Your task to perform on an android device: stop showing notifications on the lock screen Image 0: 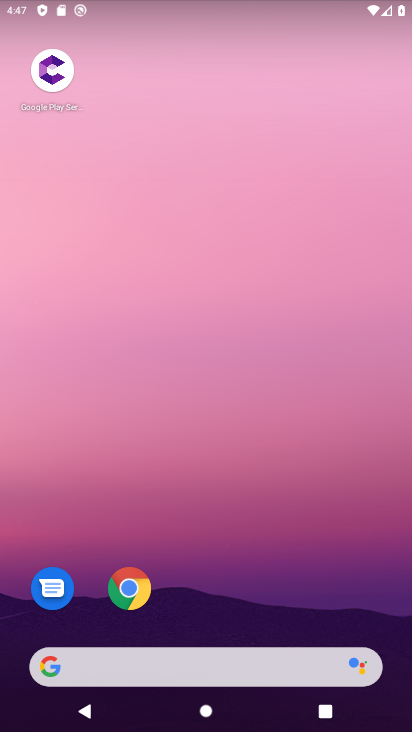
Step 0: drag from (316, 609) to (248, 158)
Your task to perform on an android device: stop showing notifications on the lock screen Image 1: 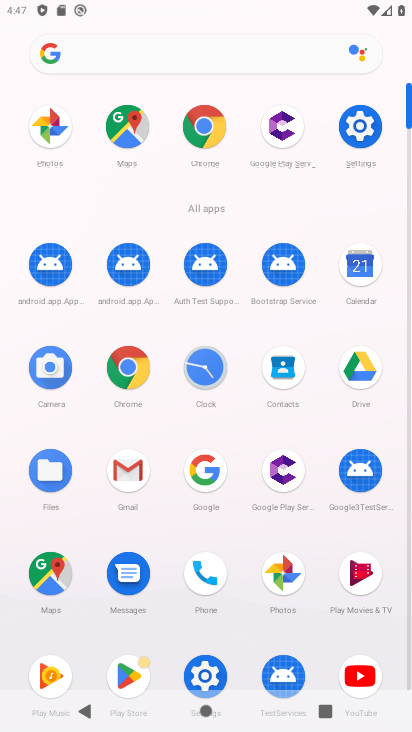
Step 1: click (366, 120)
Your task to perform on an android device: stop showing notifications on the lock screen Image 2: 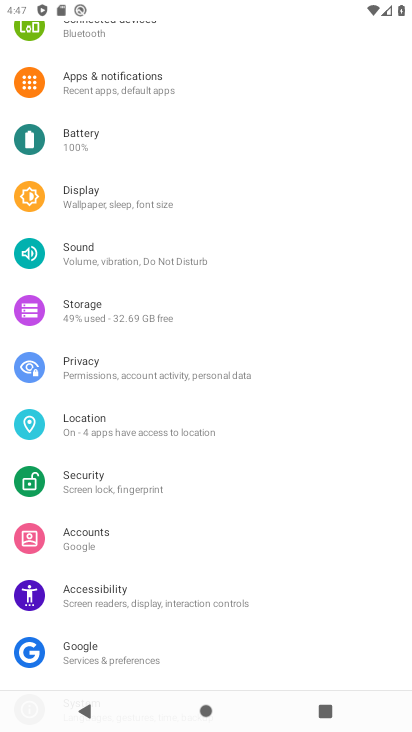
Step 2: click (271, 94)
Your task to perform on an android device: stop showing notifications on the lock screen Image 3: 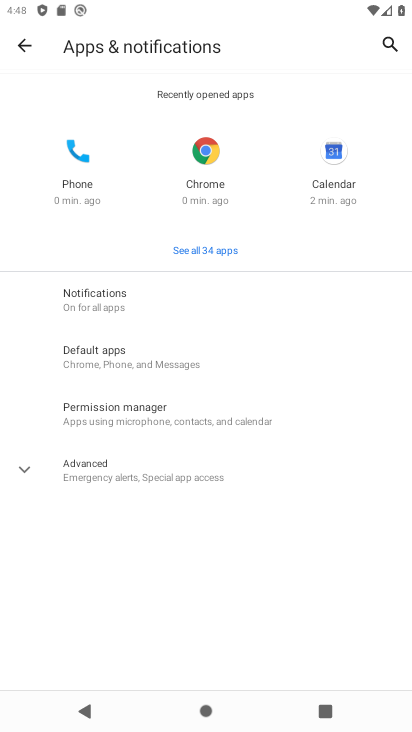
Step 3: click (145, 298)
Your task to perform on an android device: stop showing notifications on the lock screen Image 4: 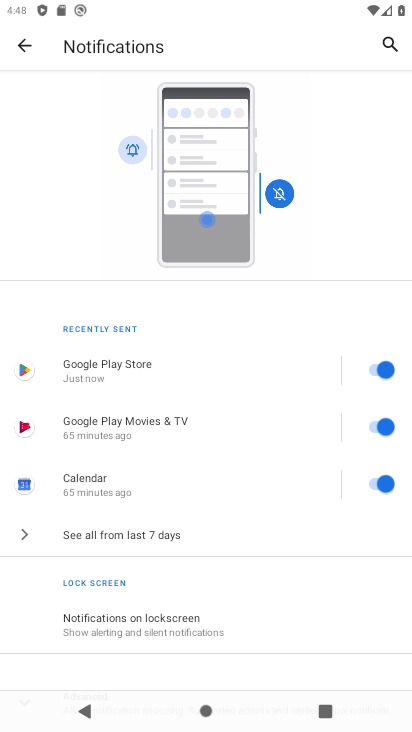
Step 4: drag from (244, 577) to (210, 300)
Your task to perform on an android device: stop showing notifications on the lock screen Image 5: 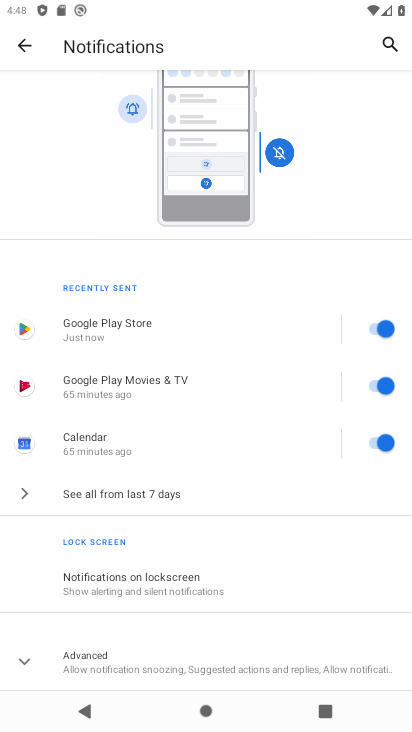
Step 5: click (245, 575)
Your task to perform on an android device: stop showing notifications on the lock screen Image 6: 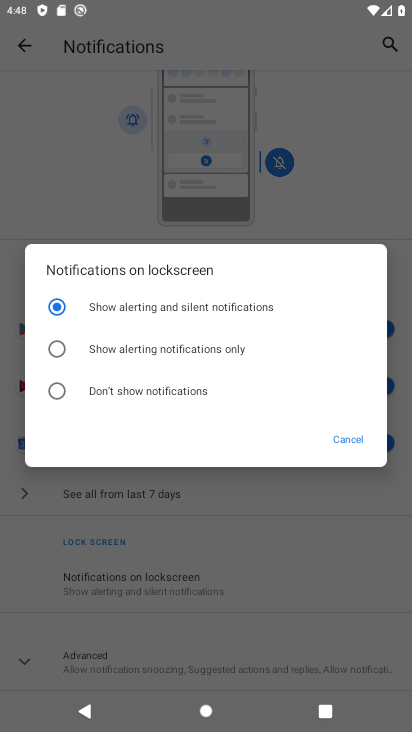
Step 6: click (191, 392)
Your task to perform on an android device: stop showing notifications on the lock screen Image 7: 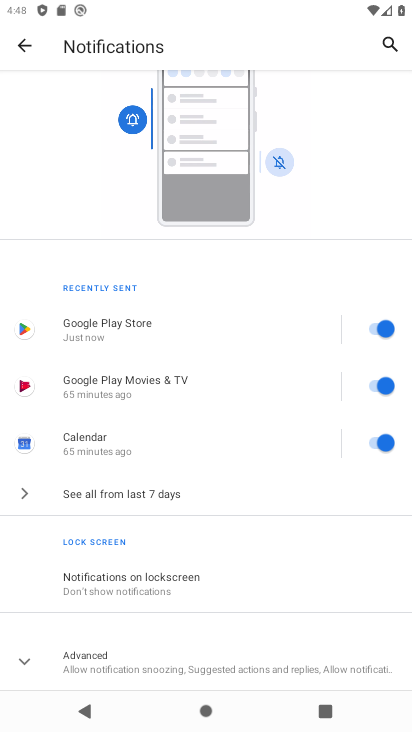
Step 7: task complete